Your task to perform on an android device: star an email in the gmail app Image 0: 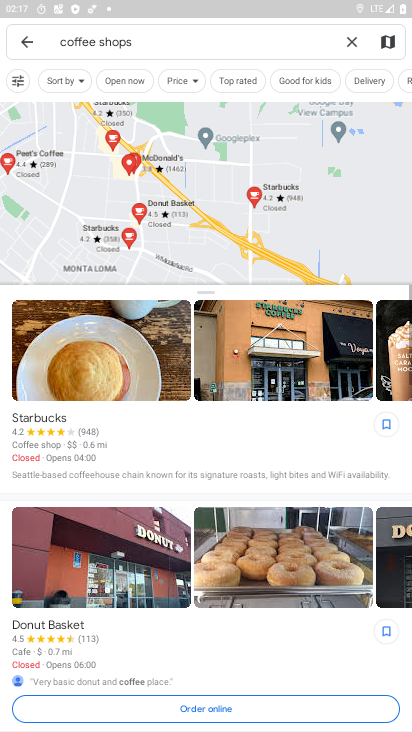
Step 0: press home button
Your task to perform on an android device: star an email in the gmail app Image 1: 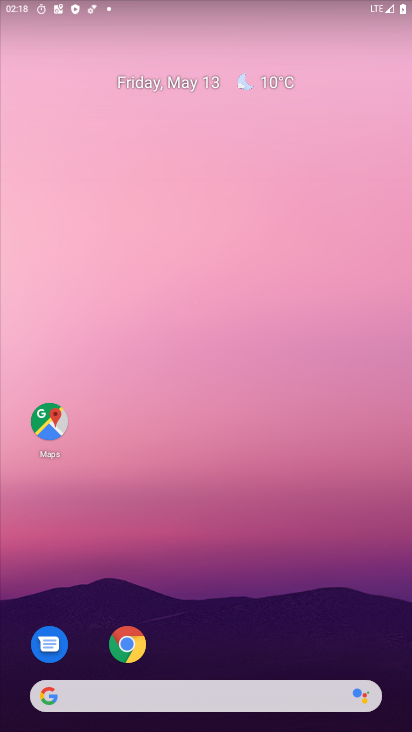
Step 1: drag from (257, 686) to (327, 21)
Your task to perform on an android device: star an email in the gmail app Image 2: 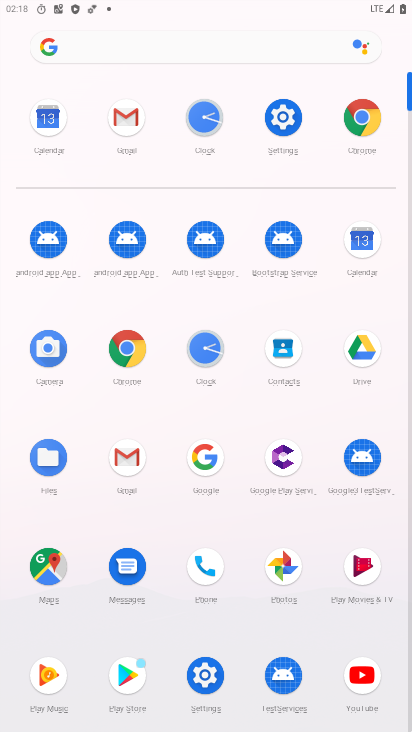
Step 2: click (121, 458)
Your task to perform on an android device: star an email in the gmail app Image 3: 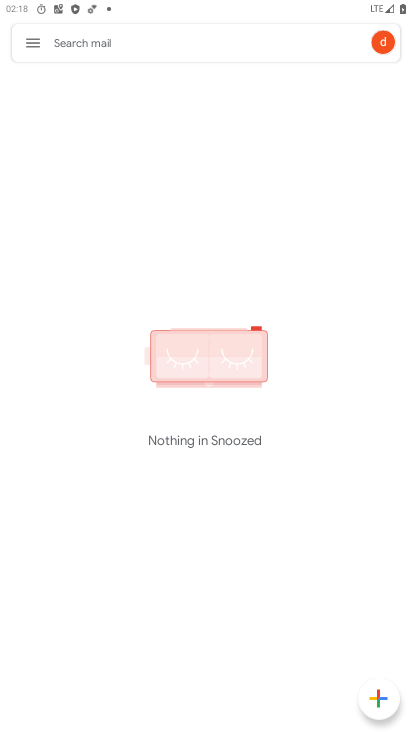
Step 3: click (26, 45)
Your task to perform on an android device: star an email in the gmail app Image 4: 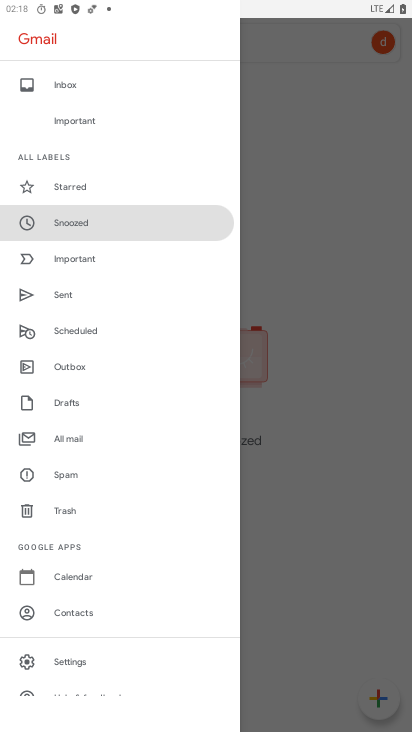
Step 4: click (99, 195)
Your task to perform on an android device: star an email in the gmail app Image 5: 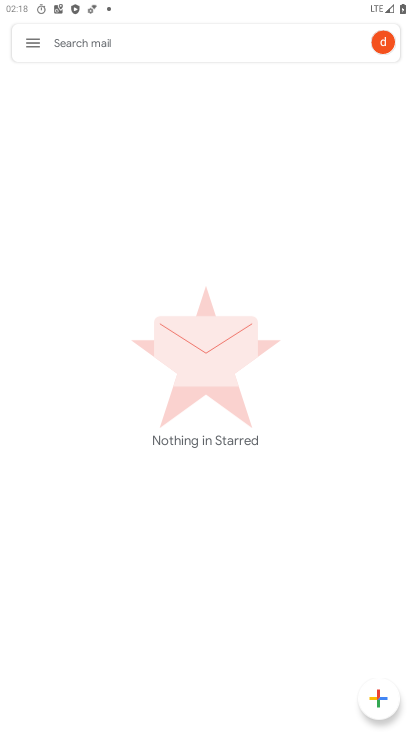
Step 5: task complete